Your task to perform on an android device: change the clock display to analog Image 0: 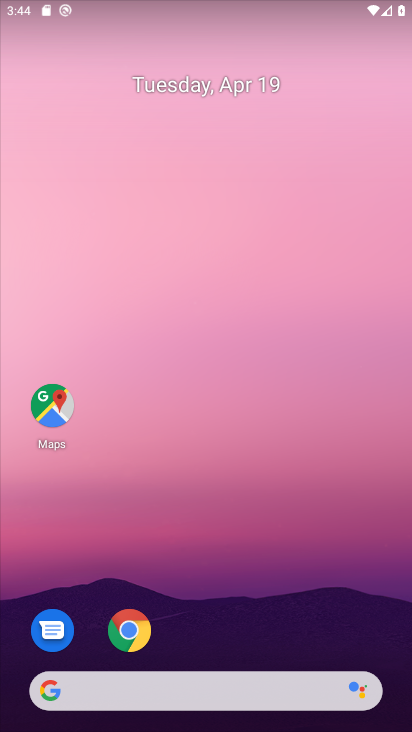
Step 0: drag from (210, 593) to (239, 230)
Your task to perform on an android device: change the clock display to analog Image 1: 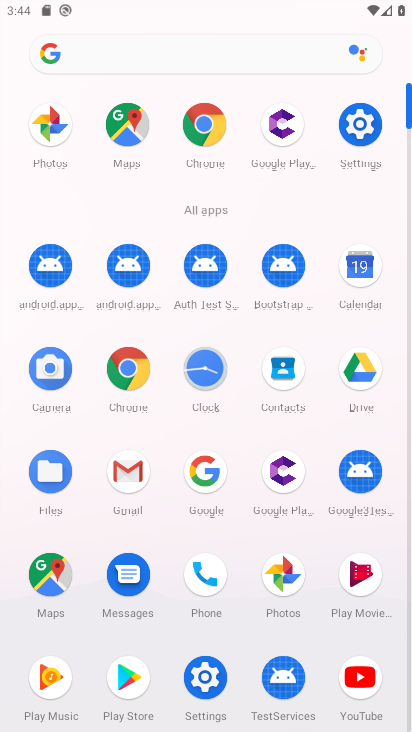
Step 1: click (198, 376)
Your task to perform on an android device: change the clock display to analog Image 2: 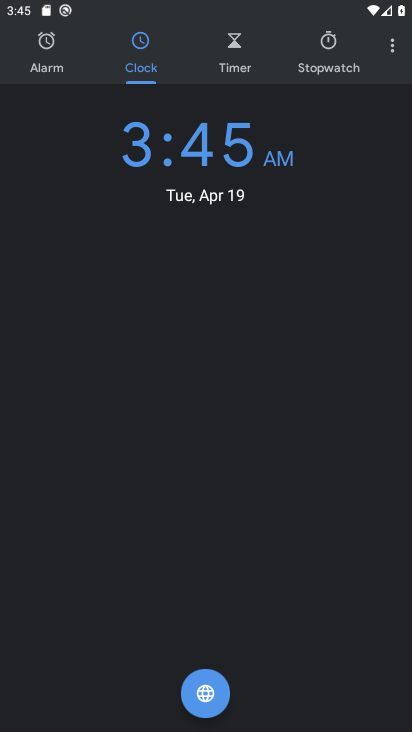
Step 2: click (397, 46)
Your task to perform on an android device: change the clock display to analog Image 3: 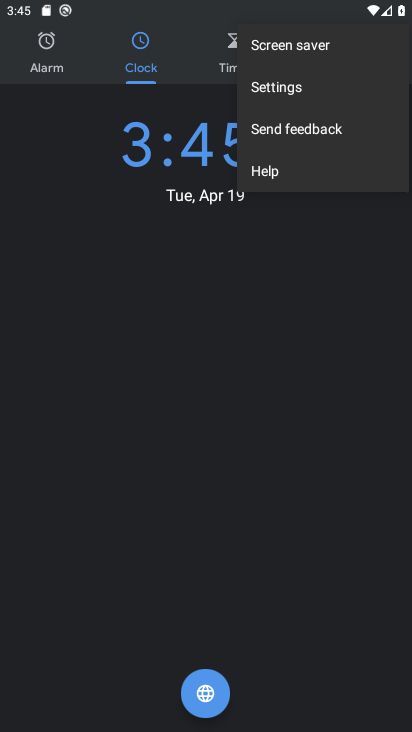
Step 3: click (324, 91)
Your task to perform on an android device: change the clock display to analog Image 4: 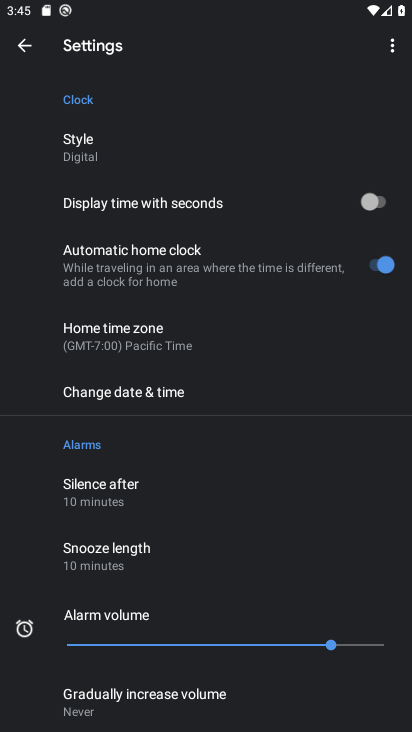
Step 4: click (155, 145)
Your task to perform on an android device: change the clock display to analog Image 5: 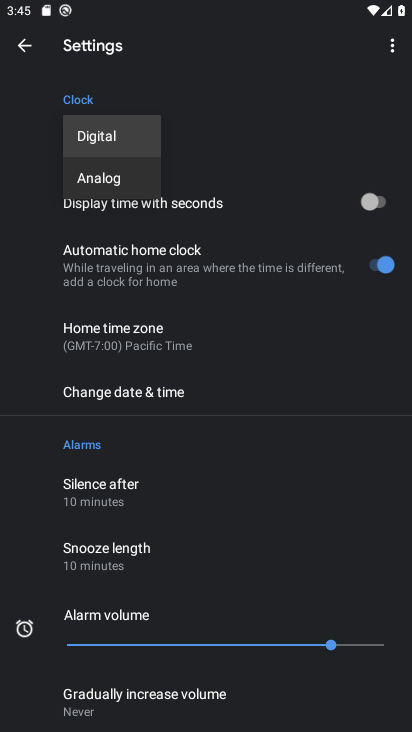
Step 5: click (126, 179)
Your task to perform on an android device: change the clock display to analog Image 6: 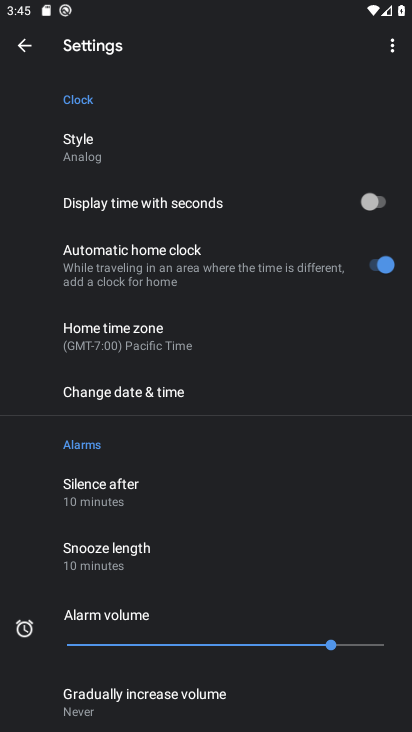
Step 6: task complete